Your task to perform on an android device: Show me popular videos on Youtube Image 0: 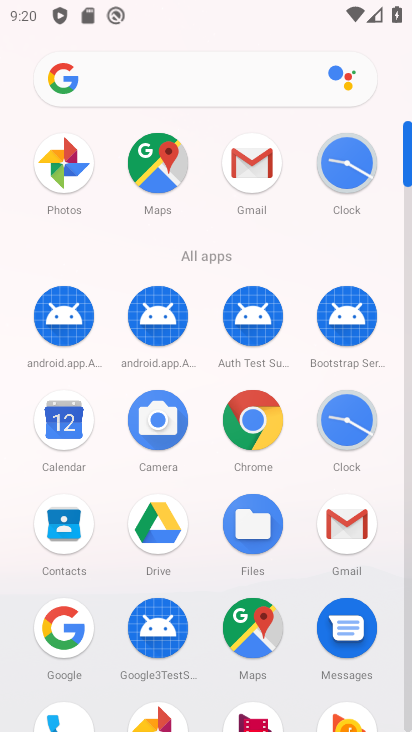
Step 0: press home button
Your task to perform on an android device: Show me popular videos on Youtube Image 1: 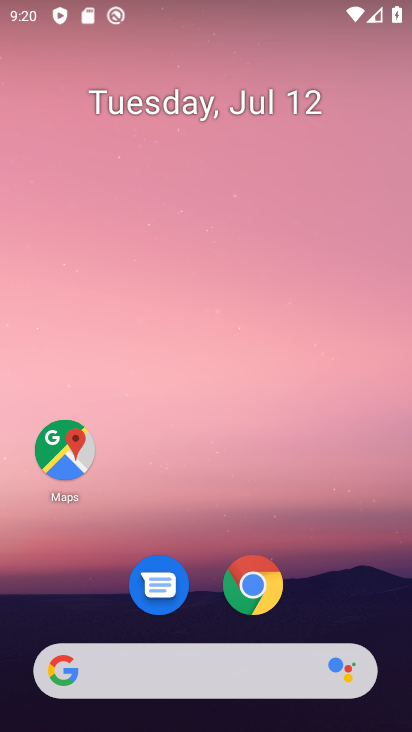
Step 1: drag from (203, 688) to (246, 245)
Your task to perform on an android device: Show me popular videos on Youtube Image 2: 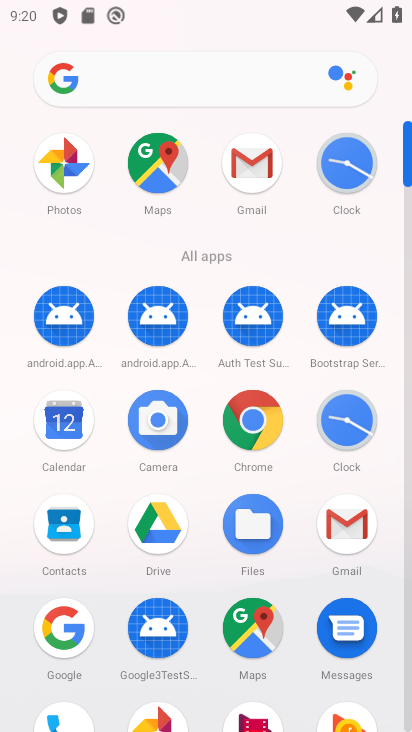
Step 2: drag from (175, 691) to (409, 57)
Your task to perform on an android device: Show me popular videos on Youtube Image 3: 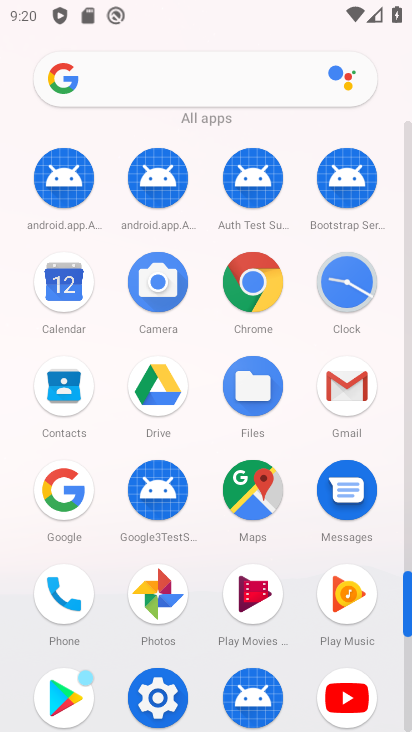
Step 3: click (344, 696)
Your task to perform on an android device: Show me popular videos on Youtube Image 4: 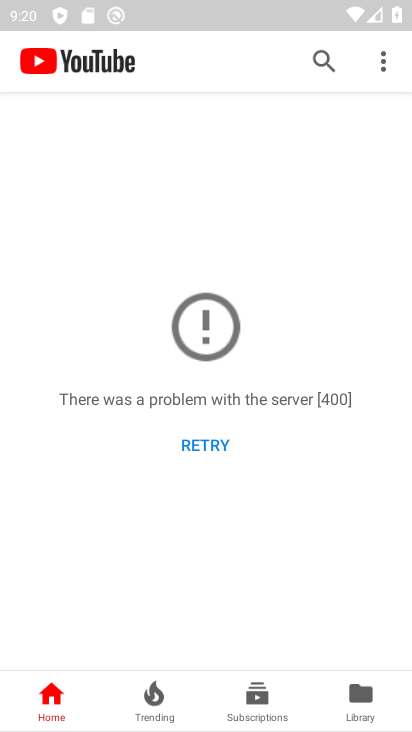
Step 4: click (212, 437)
Your task to perform on an android device: Show me popular videos on Youtube Image 5: 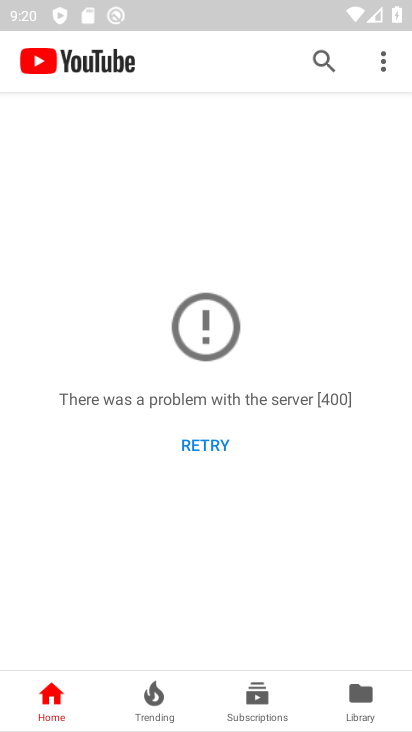
Step 5: click (214, 438)
Your task to perform on an android device: Show me popular videos on Youtube Image 6: 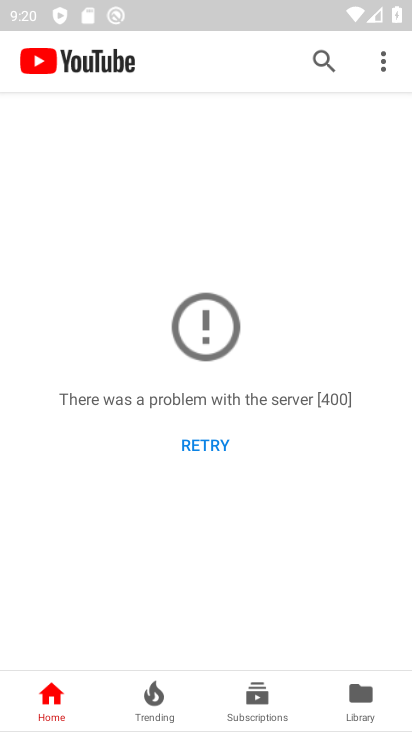
Step 6: click (204, 438)
Your task to perform on an android device: Show me popular videos on Youtube Image 7: 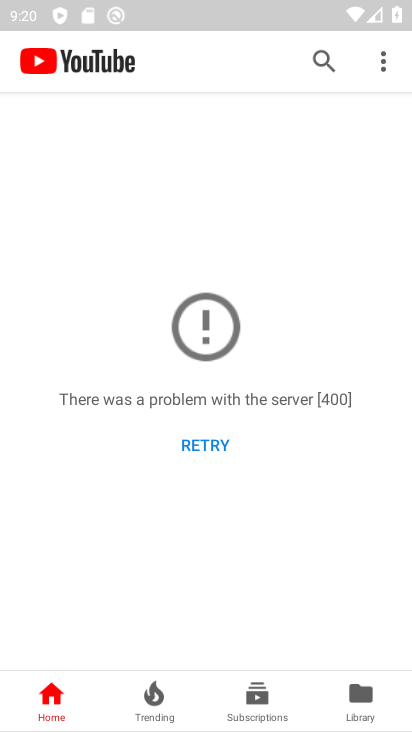
Step 7: click (204, 439)
Your task to perform on an android device: Show me popular videos on Youtube Image 8: 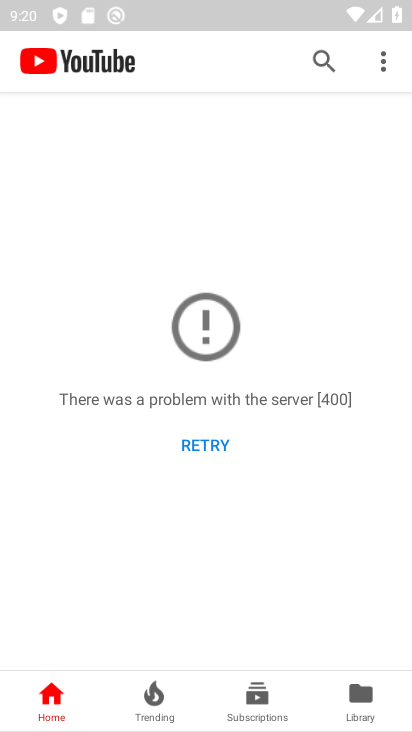
Step 8: click (204, 439)
Your task to perform on an android device: Show me popular videos on Youtube Image 9: 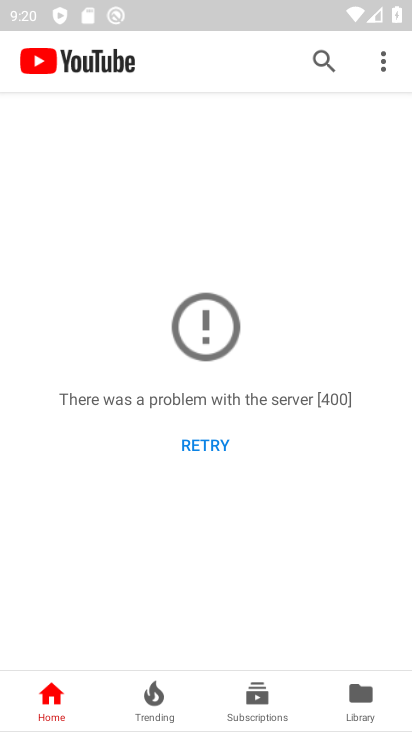
Step 9: task complete